Your task to perform on an android device: Show me popular videos on Youtube Image 0: 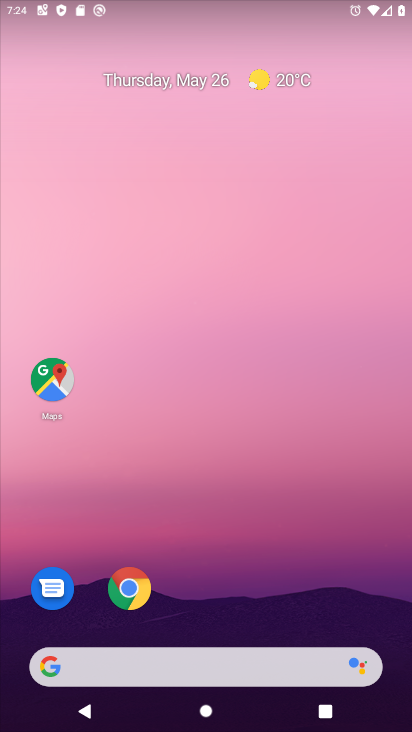
Step 0: drag from (391, 617) to (342, 19)
Your task to perform on an android device: Show me popular videos on Youtube Image 1: 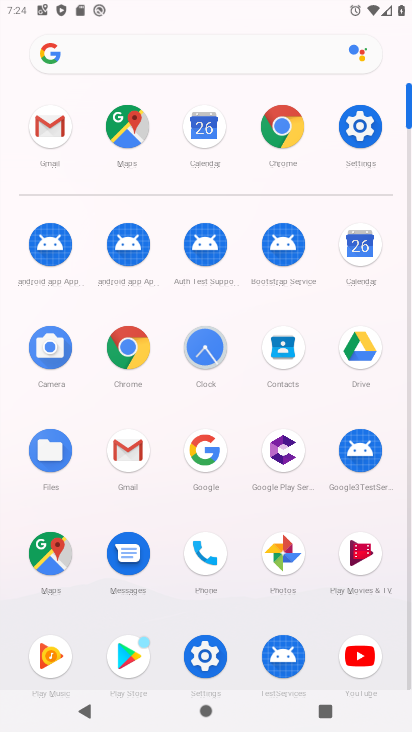
Step 1: click (367, 659)
Your task to perform on an android device: Show me popular videos on Youtube Image 2: 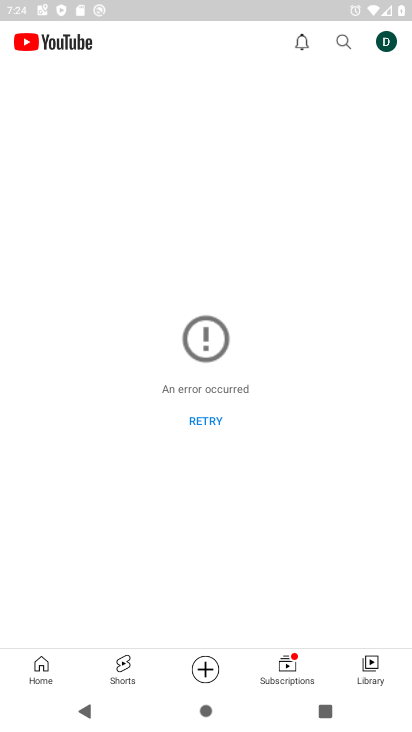
Step 2: click (218, 421)
Your task to perform on an android device: Show me popular videos on Youtube Image 3: 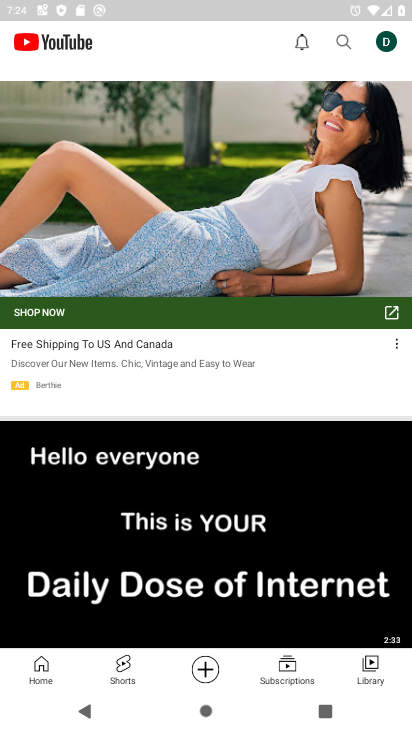
Step 3: click (46, 666)
Your task to perform on an android device: Show me popular videos on Youtube Image 4: 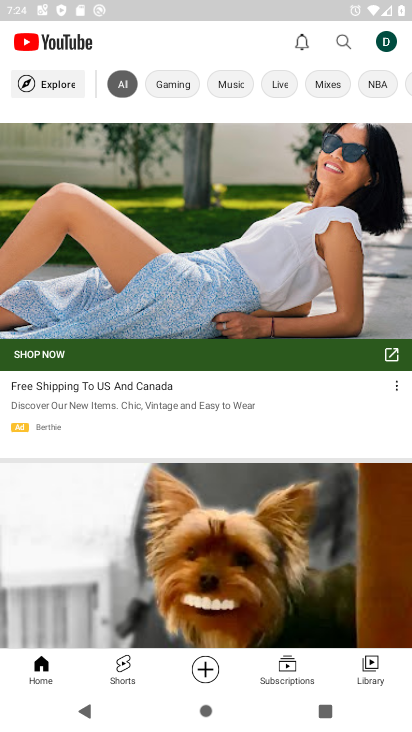
Step 4: click (373, 42)
Your task to perform on an android device: Show me popular videos on Youtube Image 5: 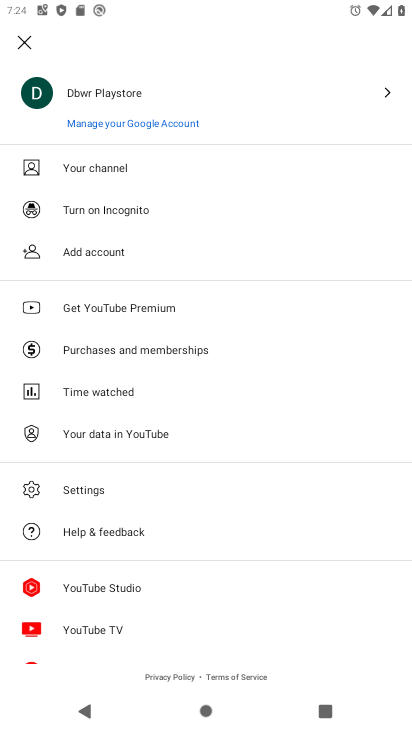
Step 5: drag from (170, 591) to (217, 261)
Your task to perform on an android device: Show me popular videos on Youtube Image 6: 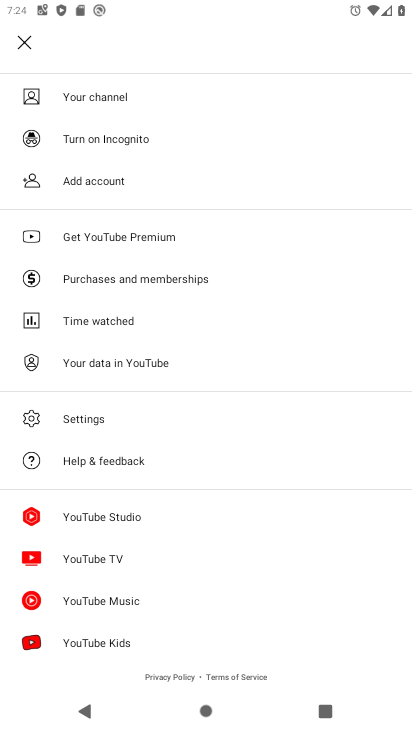
Step 6: click (84, 418)
Your task to perform on an android device: Show me popular videos on Youtube Image 7: 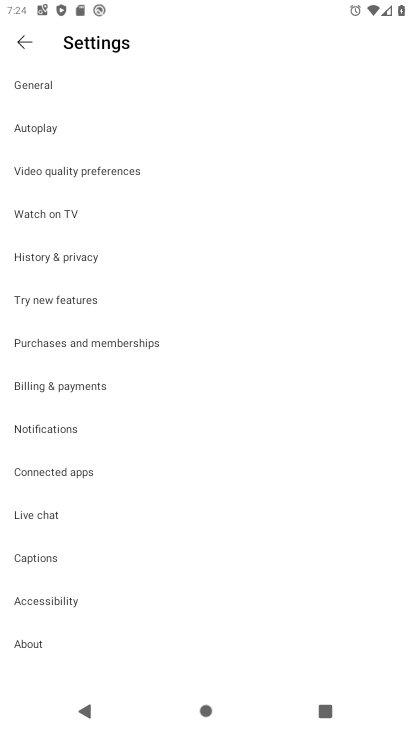
Step 7: drag from (66, 618) to (194, 200)
Your task to perform on an android device: Show me popular videos on Youtube Image 8: 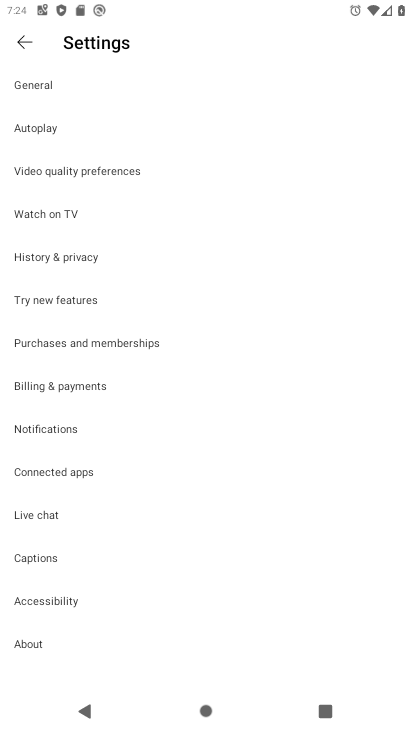
Step 8: press back button
Your task to perform on an android device: Show me popular videos on Youtube Image 9: 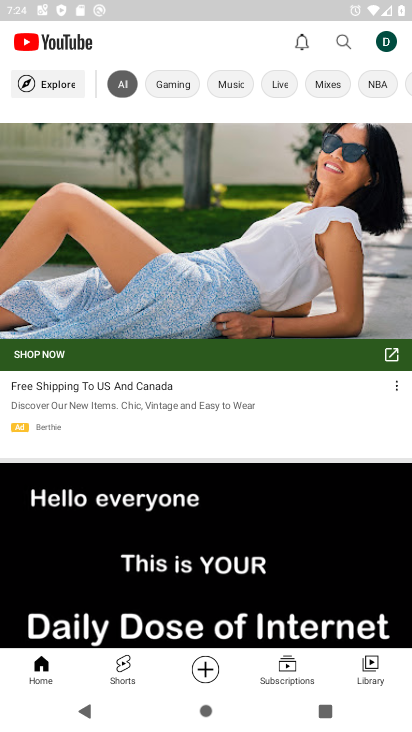
Step 9: click (44, 92)
Your task to perform on an android device: Show me popular videos on Youtube Image 10: 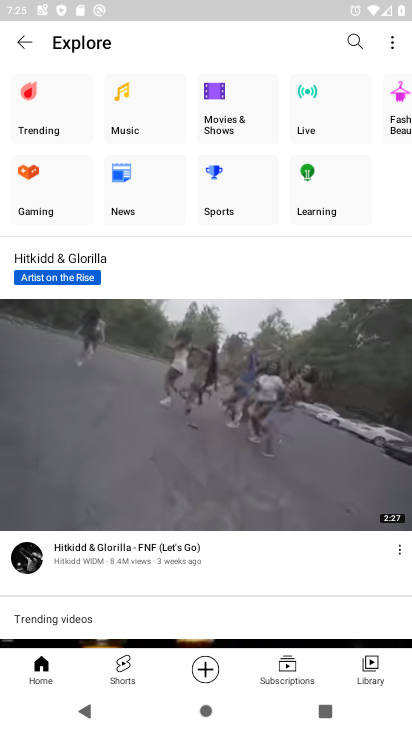
Step 10: drag from (350, 107) to (1, 78)
Your task to perform on an android device: Show me popular videos on Youtube Image 11: 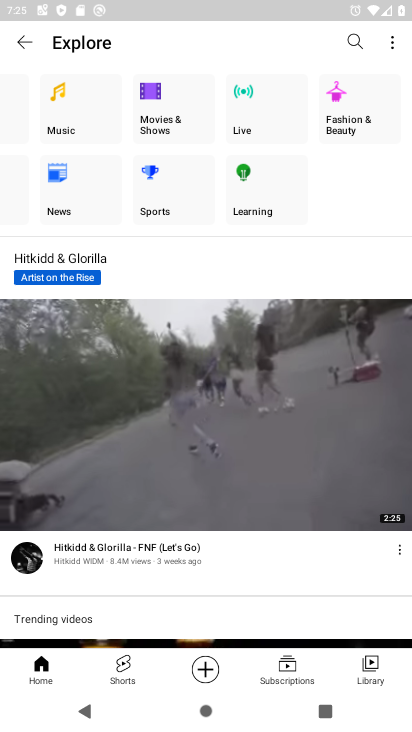
Step 11: drag from (83, 120) to (404, 165)
Your task to perform on an android device: Show me popular videos on Youtube Image 12: 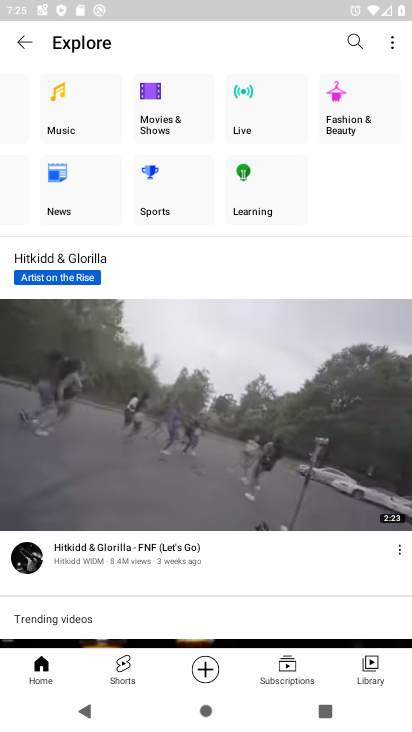
Step 12: drag from (86, 106) to (383, 65)
Your task to perform on an android device: Show me popular videos on Youtube Image 13: 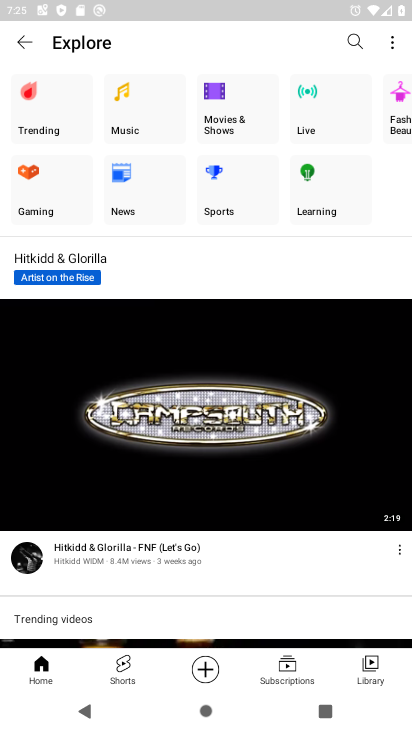
Step 13: click (55, 128)
Your task to perform on an android device: Show me popular videos on Youtube Image 14: 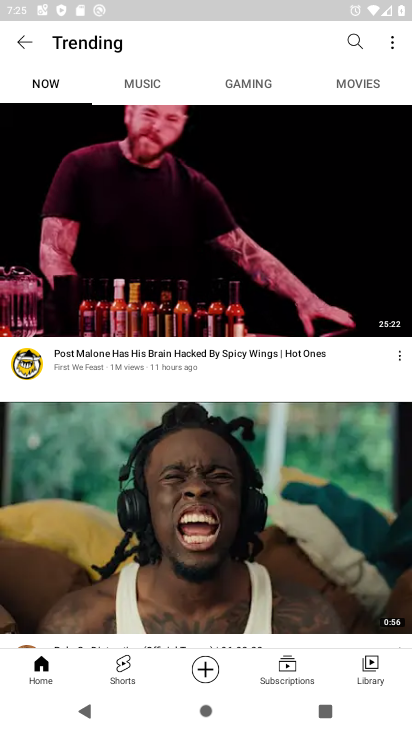
Step 14: task complete